Your task to perform on an android device: Open Chrome and go to settings Image 0: 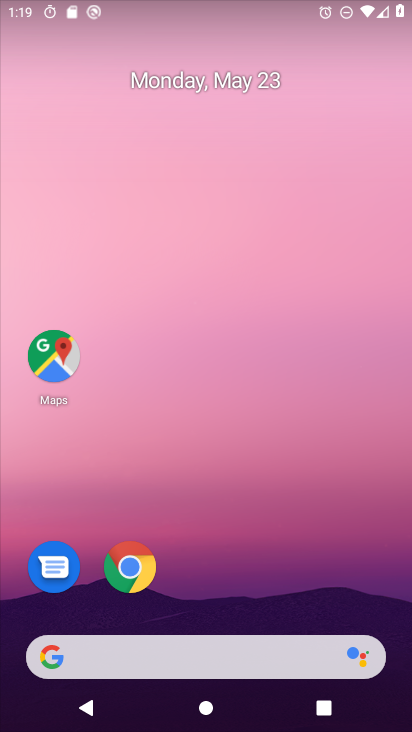
Step 0: click (137, 575)
Your task to perform on an android device: Open Chrome and go to settings Image 1: 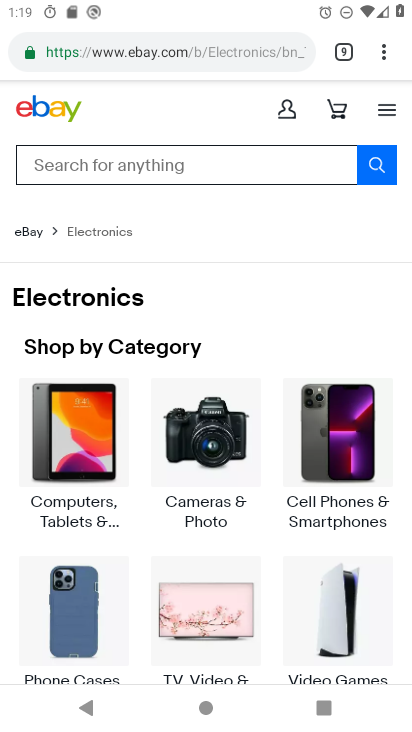
Step 1: click (391, 53)
Your task to perform on an android device: Open Chrome and go to settings Image 2: 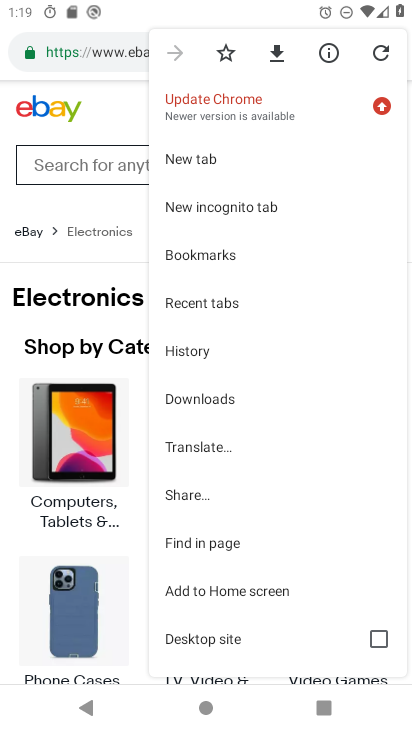
Step 2: drag from (223, 557) to (294, 169)
Your task to perform on an android device: Open Chrome and go to settings Image 3: 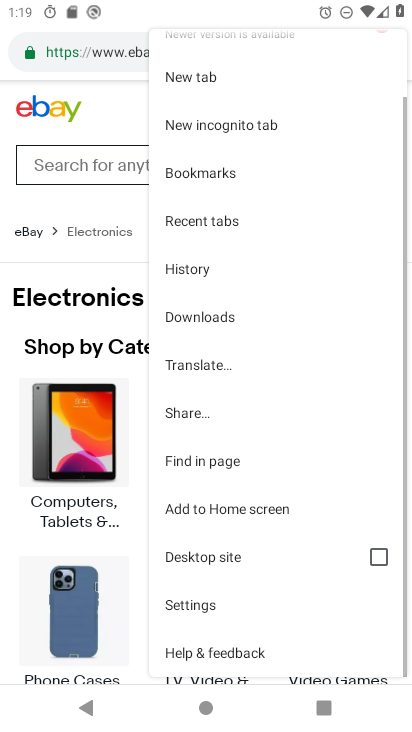
Step 3: click (195, 599)
Your task to perform on an android device: Open Chrome and go to settings Image 4: 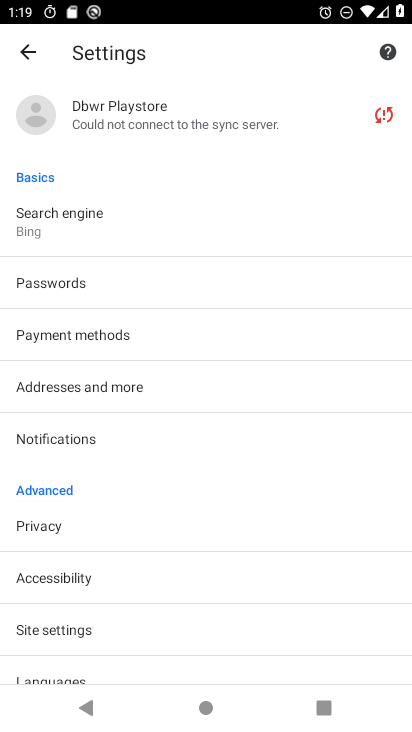
Step 4: task complete